Your task to perform on an android device: turn on bluetooth scan Image 0: 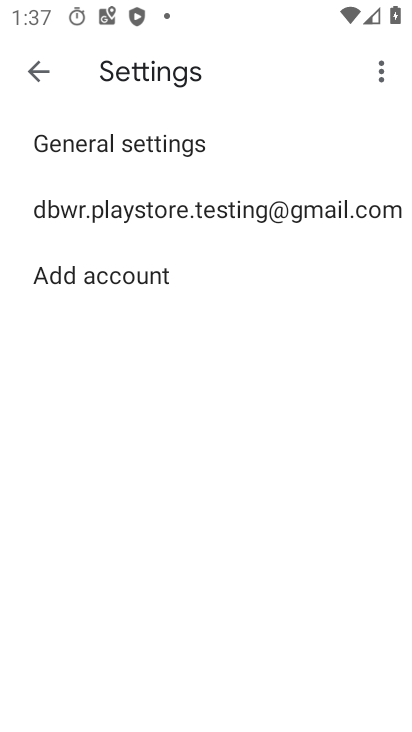
Step 0: press enter
Your task to perform on an android device: turn on bluetooth scan Image 1: 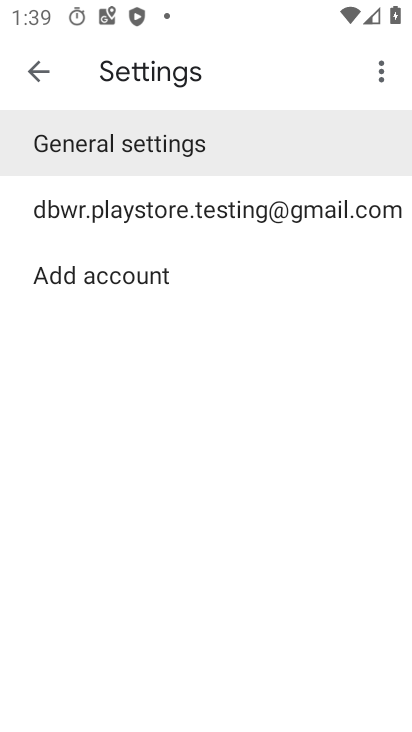
Step 1: press home button
Your task to perform on an android device: turn on bluetooth scan Image 2: 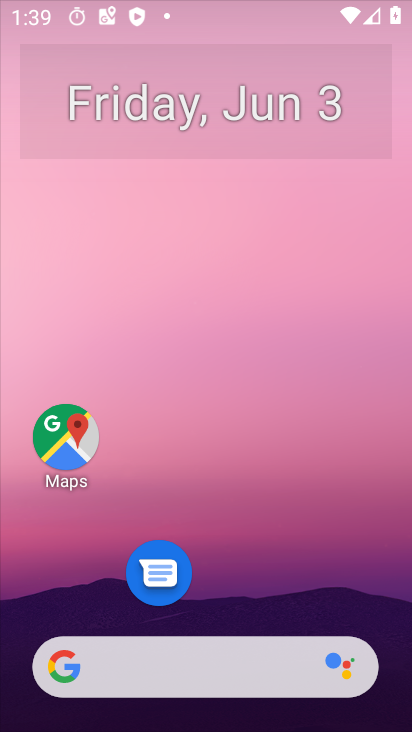
Step 2: drag from (186, 686) to (349, 5)
Your task to perform on an android device: turn on bluetooth scan Image 3: 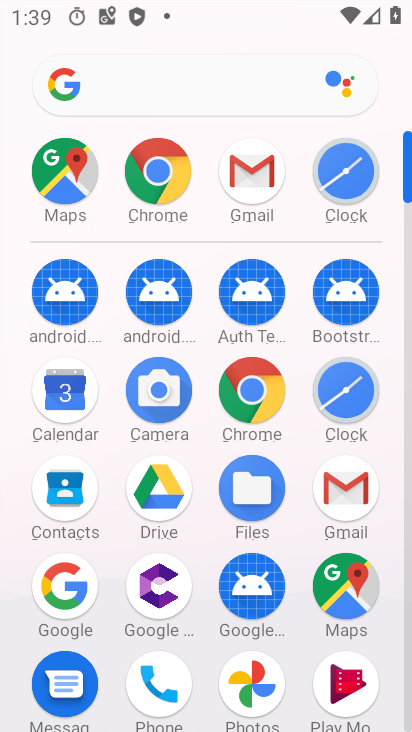
Step 3: drag from (301, 646) to (274, 82)
Your task to perform on an android device: turn on bluetooth scan Image 4: 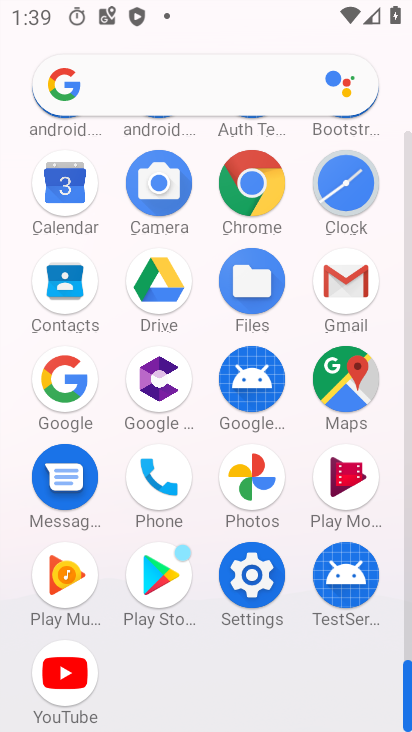
Step 4: click (244, 568)
Your task to perform on an android device: turn on bluetooth scan Image 5: 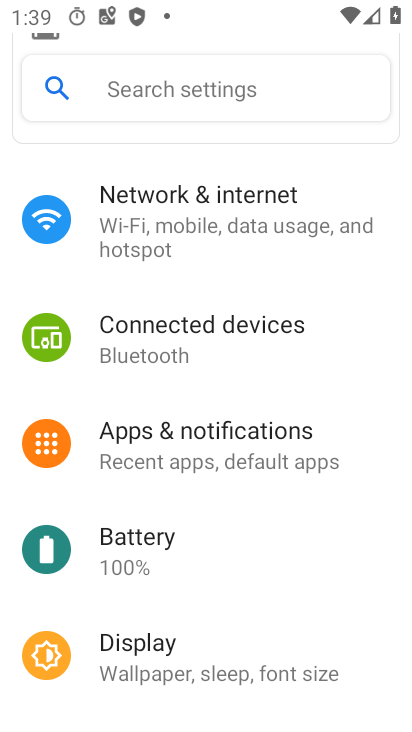
Step 5: drag from (258, 611) to (256, 67)
Your task to perform on an android device: turn on bluetooth scan Image 6: 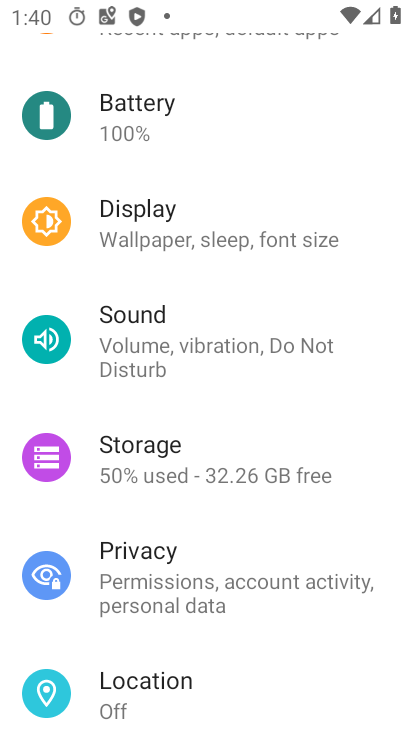
Step 6: click (140, 680)
Your task to perform on an android device: turn on bluetooth scan Image 7: 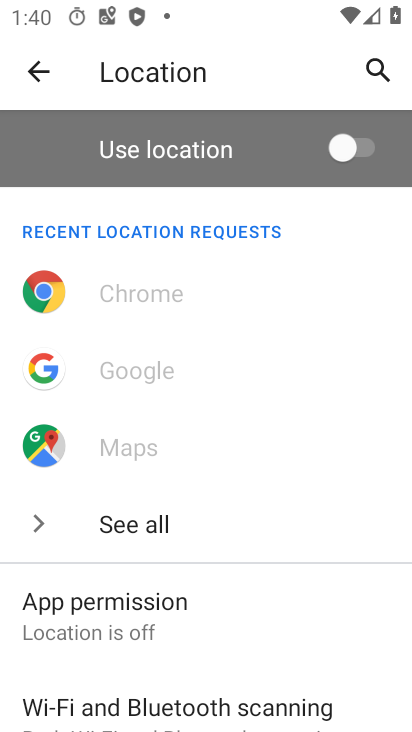
Step 7: drag from (208, 675) to (306, 291)
Your task to perform on an android device: turn on bluetooth scan Image 8: 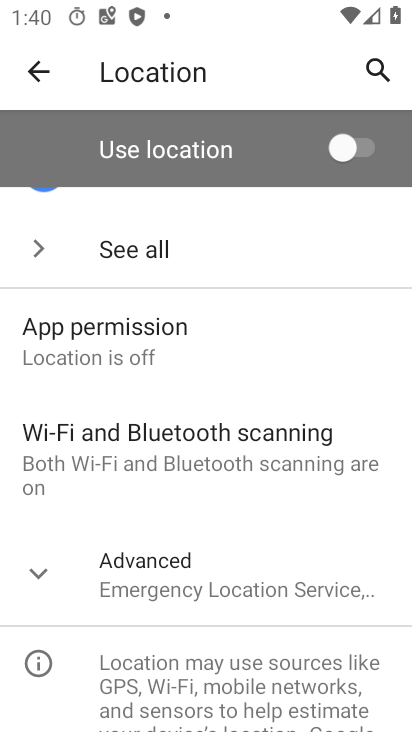
Step 8: click (211, 461)
Your task to perform on an android device: turn on bluetooth scan Image 9: 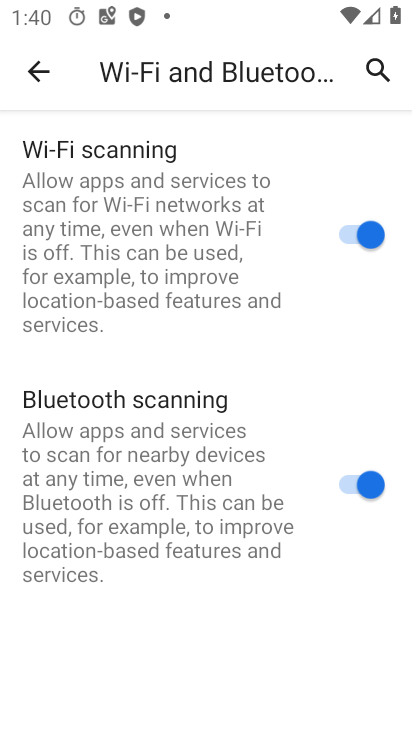
Step 9: task complete